Your task to perform on an android device: Go to network settings Image 0: 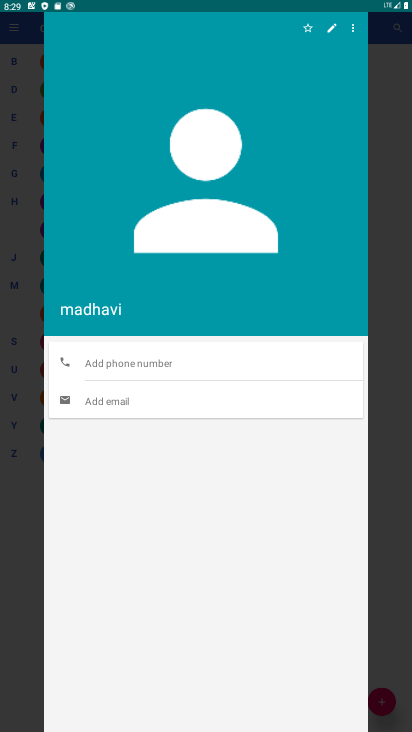
Step 0: press home button
Your task to perform on an android device: Go to network settings Image 1: 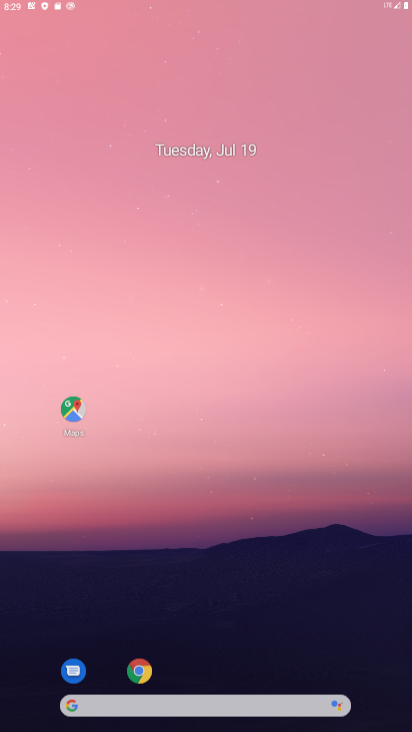
Step 1: drag from (347, 698) to (206, 67)
Your task to perform on an android device: Go to network settings Image 2: 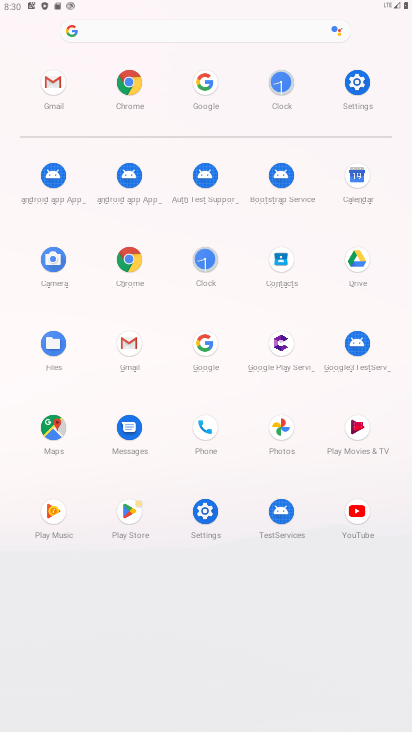
Step 2: click (211, 513)
Your task to perform on an android device: Go to network settings Image 3: 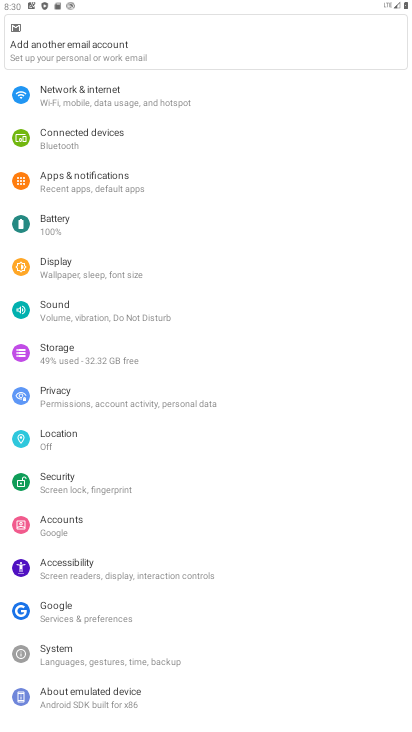
Step 3: click (115, 97)
Your task to perform on an android device: Go to network settings Image 4: 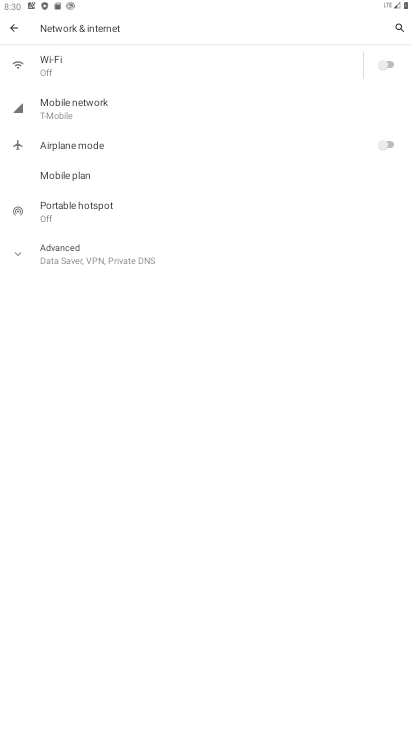
Step 4: task complete